Your task to perform on an android device: Open the Play Movies app and select the watchlist tab. Image 0: 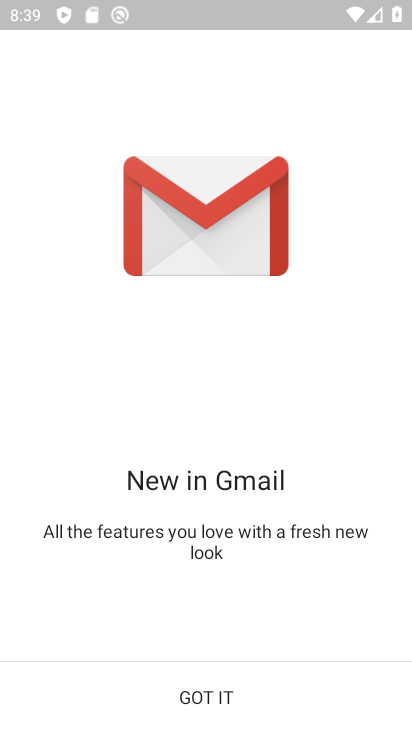
Step 0: press home button
Your task to perform on an android device: Open the Play Movies app and select the watchlist tab. Image 1: 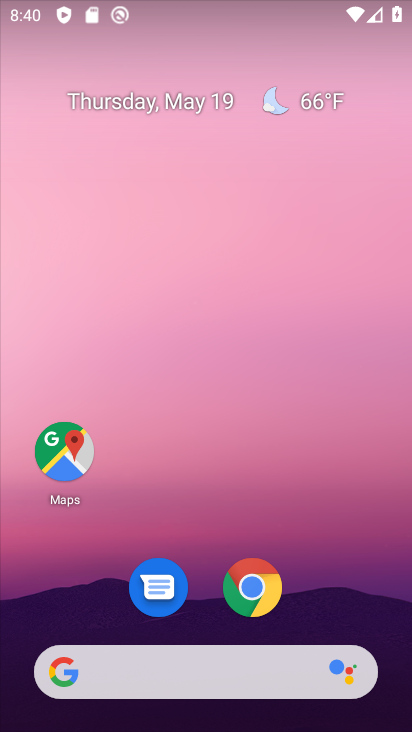
Step 1: drag from (259, 702) to (271, 205)
Your task to perform on an android device: Open the Play Movies app and select the watchlist tab. Image 2: 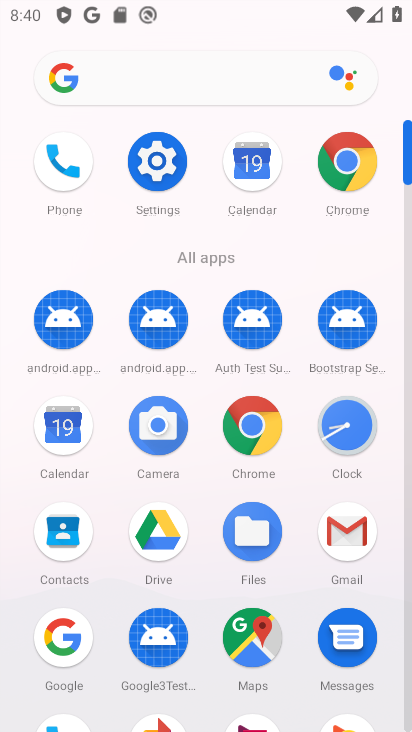
Step 2: drag from (295, 595) to (297, 416)
Your task to perform on an android device: Open the Play Movies app and select the watchlist tab. Image 3: 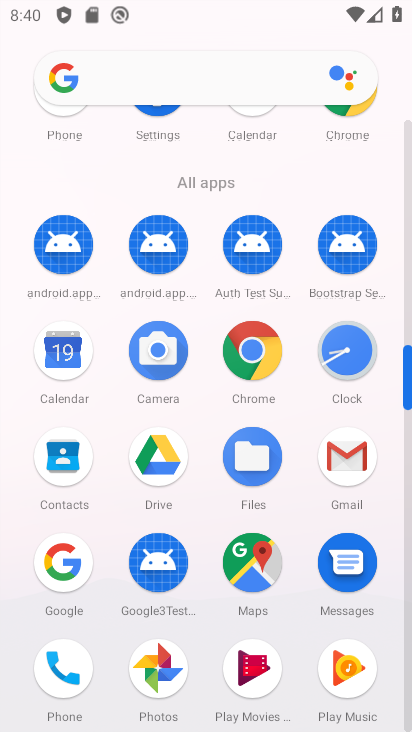
Step 3: click (255, 660)
Your task to perform on an android device: Open the Play Movies app and select the watchlist tab. Image 4: 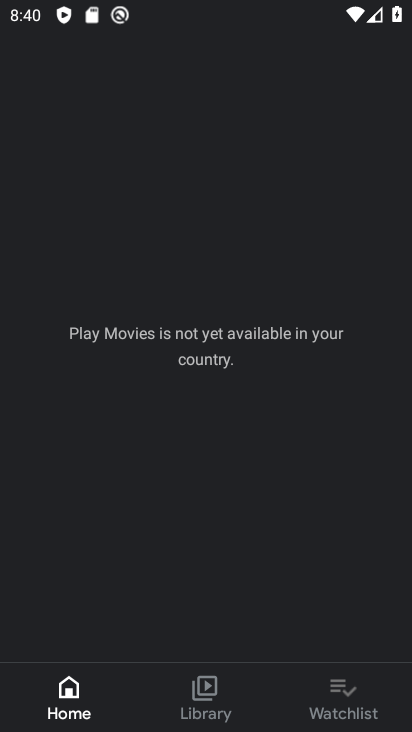
Step 4: click (325, 690)
Your task to perform on an android device: Open the Play Movies app and select the watchlist tab. Image 5: 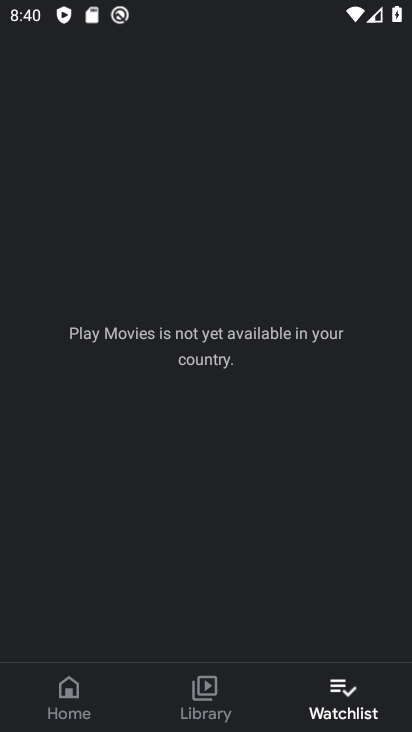
Step 5: task complete